Your task to perform on an android device: Open settings on Google Maps Image 0: 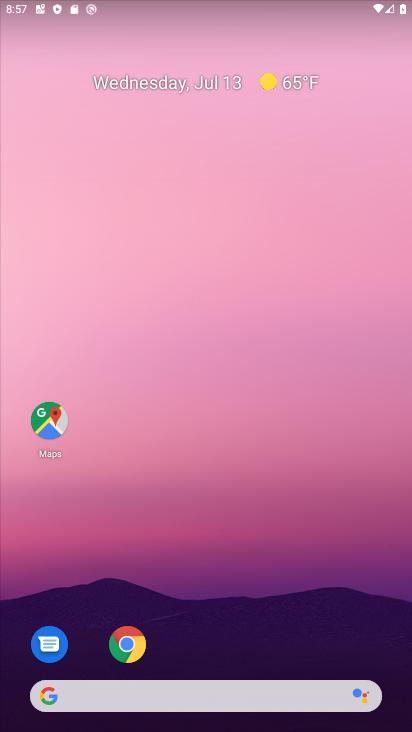
Step 0: drag from (302, 466) to (209, 27)
Your task to perform on an android device: Open settings on Google Maps Image 1: 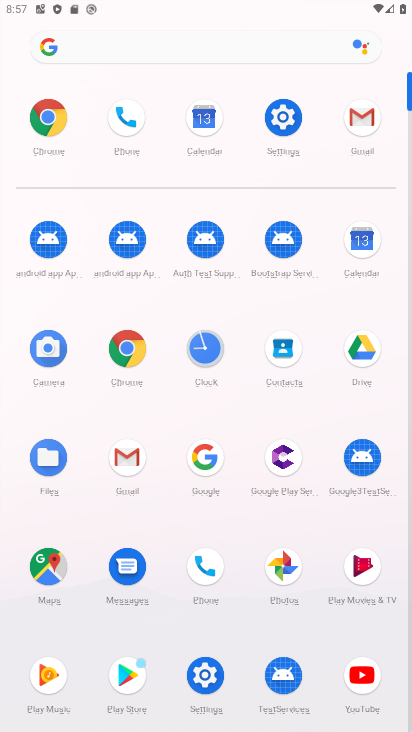
Step 1: click (56, 566)
Your task to perform on an android device: Open settings on Google Maps Image 2: 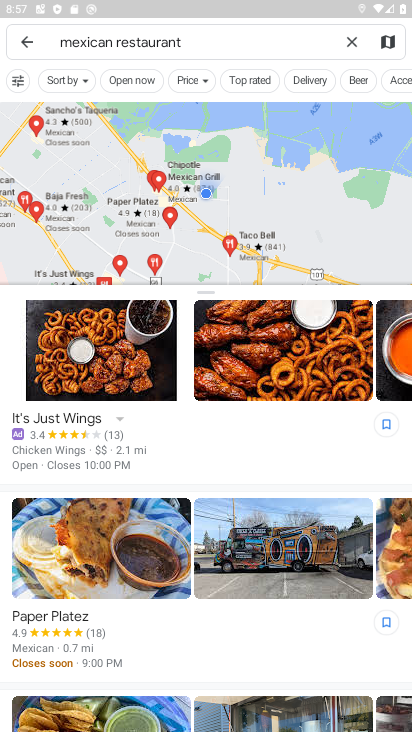
Step 2: click (21, 31)
Your task to perform on an android device: Open settings on Google Maps Image 3: 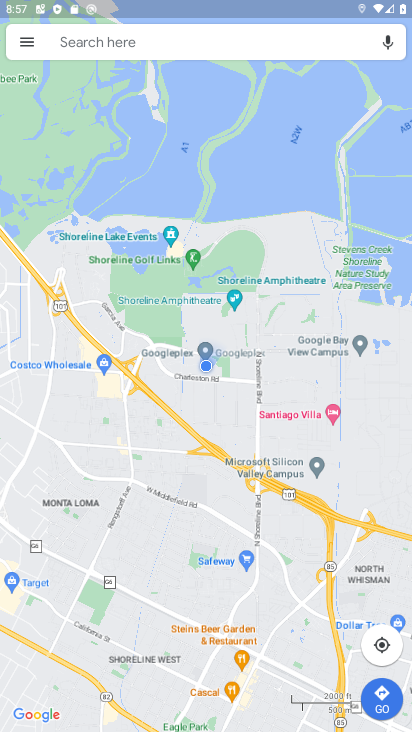
Step 3: click (14, 34)
Your task to perform on an android device: Open settings on Google Maps Image 4: 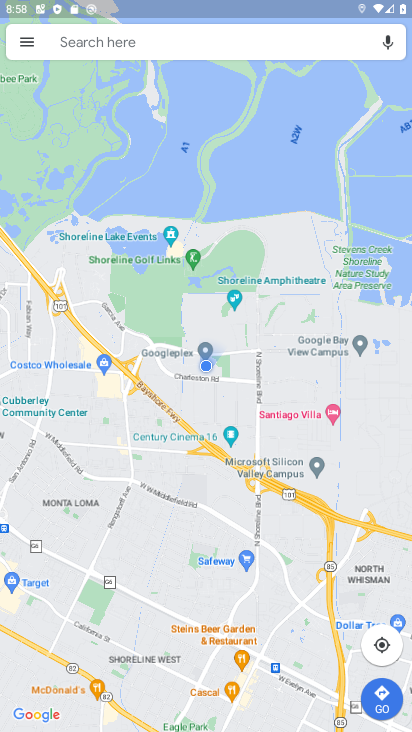
Step 4: click (14, 34)
Your task to perform on an android device: Open settings on Google Maps Image 5: 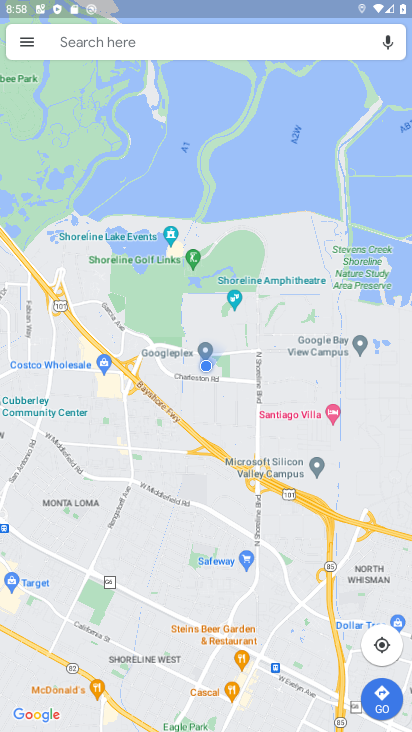
Step 5: click (23, 42)
Your task to perform on an android device: Open settings on Google Maps Image 6: 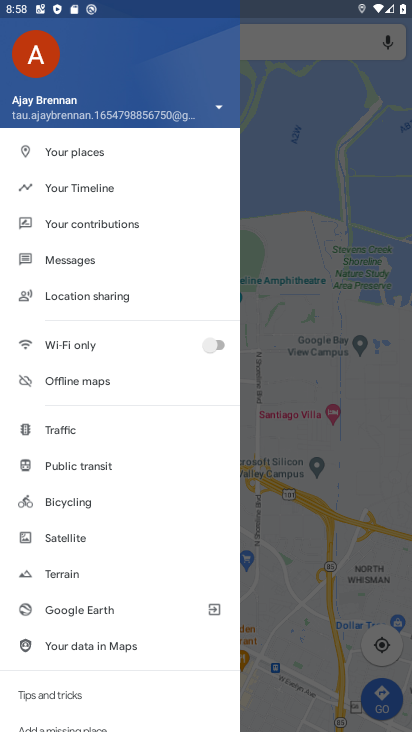
Step 6: drag from (105, 636) to (48, 465)
Your task to perform on an android device: Open settings on Google Maps Image 7: 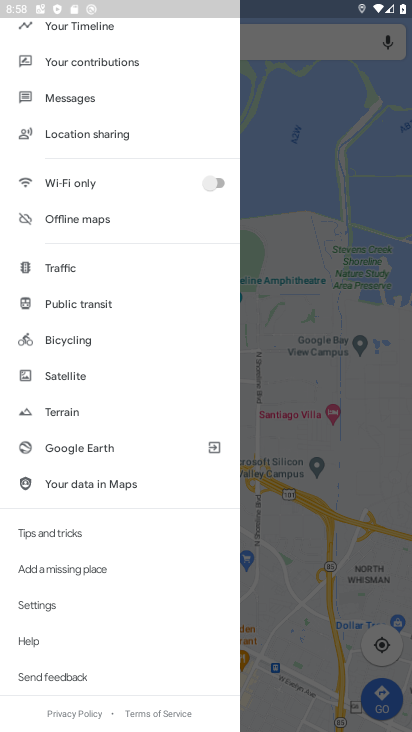
Step 7: drag from (75, 304) to (186, 622)
Your task to perform on an android device: Open settings on Google Maps Image 8: 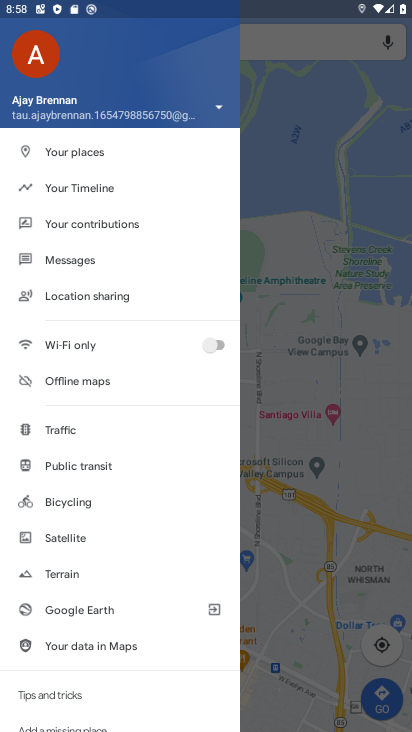
Step 8: drag from (132, 604) to (204, 196)
Your task to perform on an android device: Open settings on Google Maps Image 9: 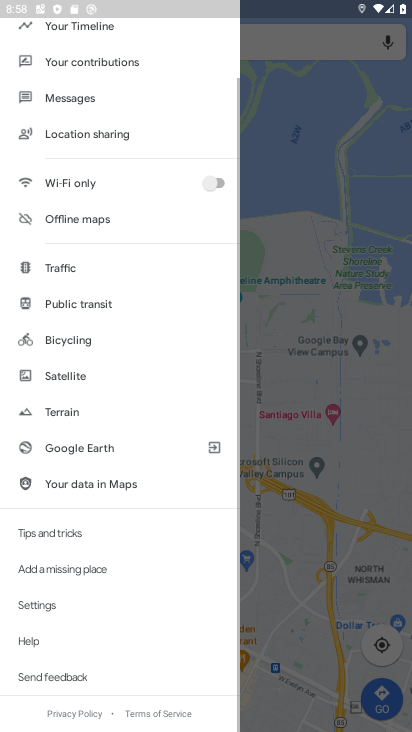
Step 9: click (47, 610)
Your task to perform on an android device: Open settings on Google Maps Image 10: 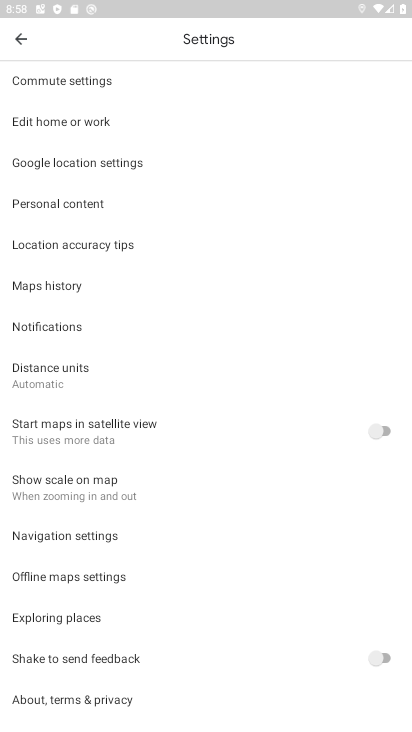
Step 10: task complete